Your task to perform on an android device: turn on notifications settings in the gmail app Image 0: 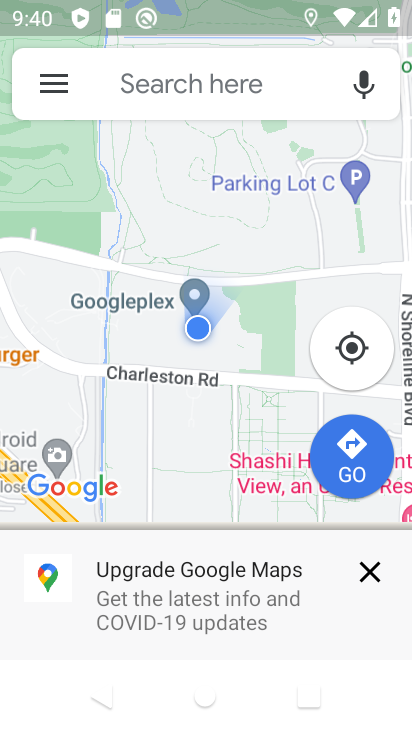
Step 0: press home button
Your task to perform on an android device: turn on notifications settings in the gmail app Image 1: 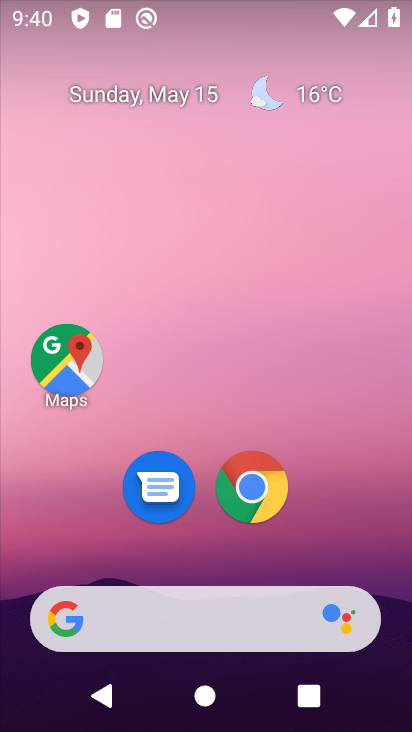
Step 1: drag from (403, 631) to (316, 34)
Your task to perform on an android device: turn on notifications settings in the gmail app Image 2: 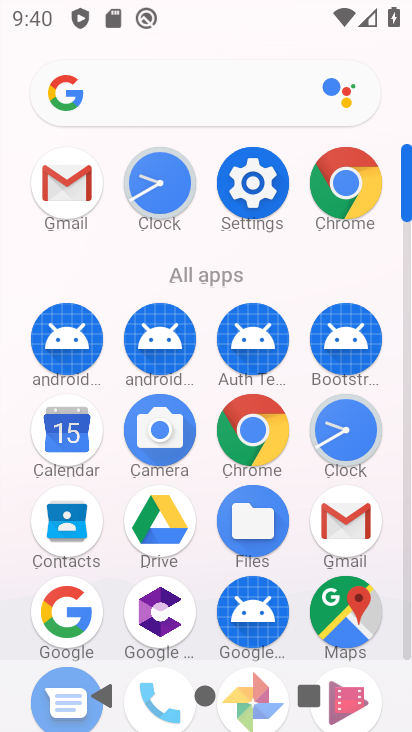
Step 2: click (406, 645)
Your task to perform on an android device: turn on notifications settings in the gmail app Image 3: 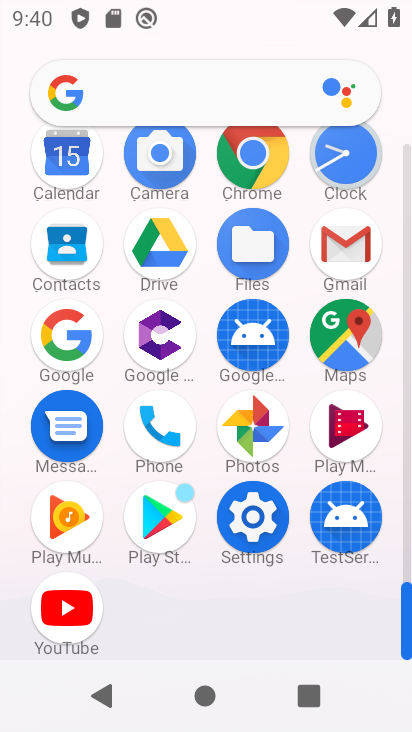
Step 3: click (345, 242)
Your task to perform on an android device: turn on notifications settings in the gmail app Image 4: 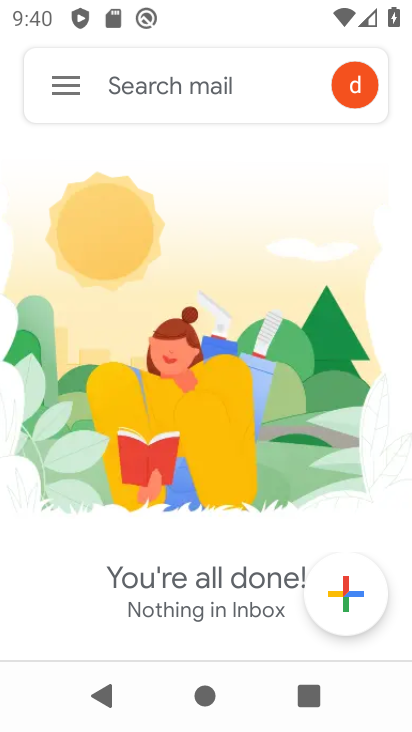
Step 4: click (69, 81)
Your task to perform on an android device: turn on notifications settings in the gmail app Image 5: 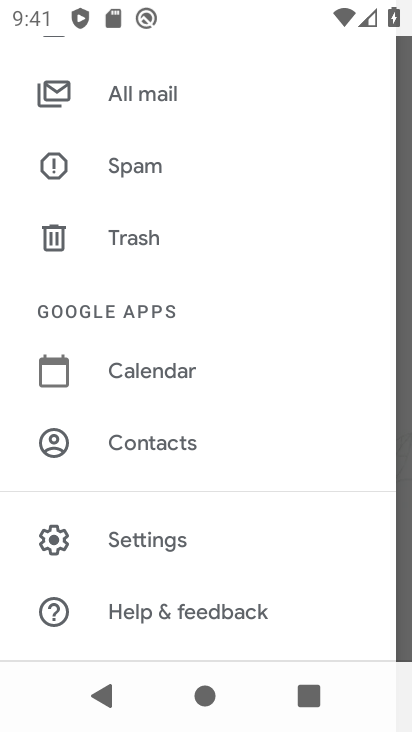
Step 5: click (166, 539)
Your task to perform on an android device: turn on notifications settings in the gmail app Image 6: 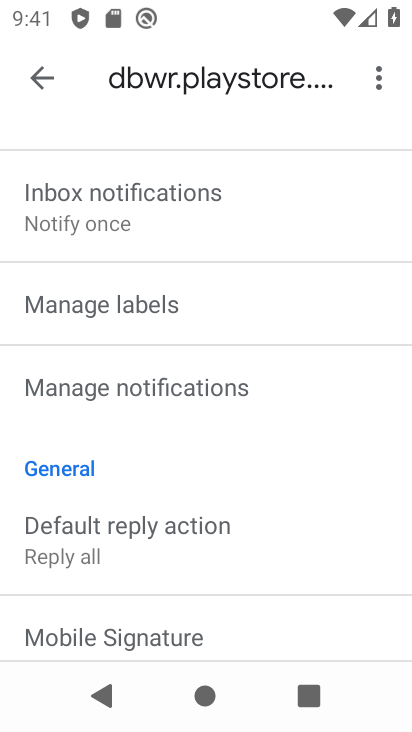
Step 6: click (134, 387)
Your task to perform on an android device: turn on notifications settings in the gmail app Image 7: 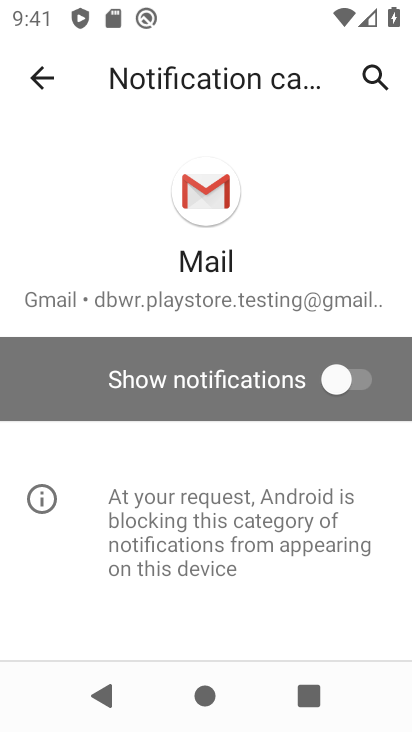
Step 7: click (352, 383)
Your task to perform on an android device: turn on notifications settings in the gmail app Image 8: 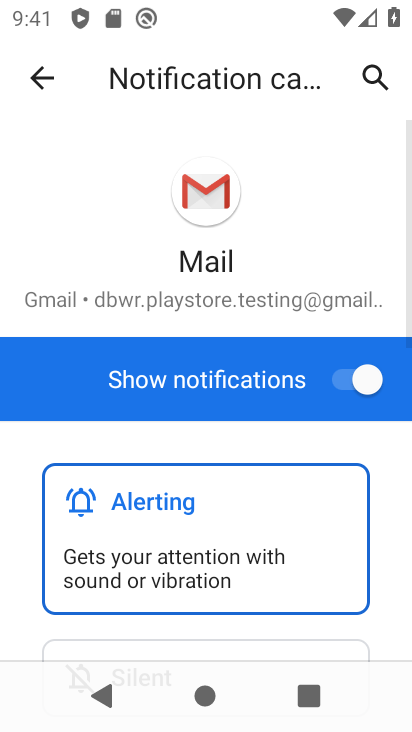
Step 8: task complete